Your task to perform on an android device: Open ESPN.com Image 0: 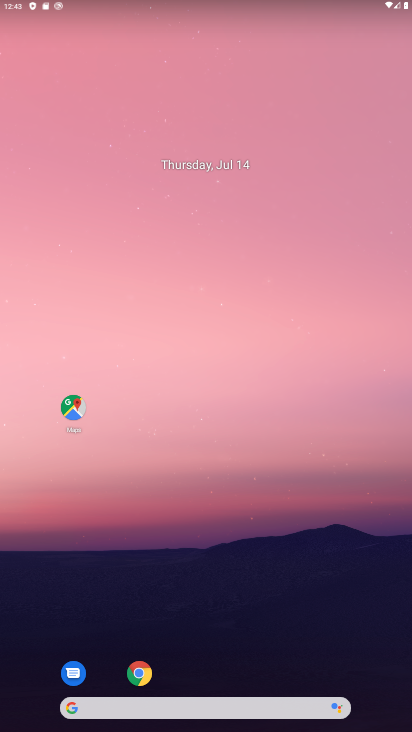
Step 0: click (143, 673)
Your task to perform on an android device: Open ESPN.com Image 1: 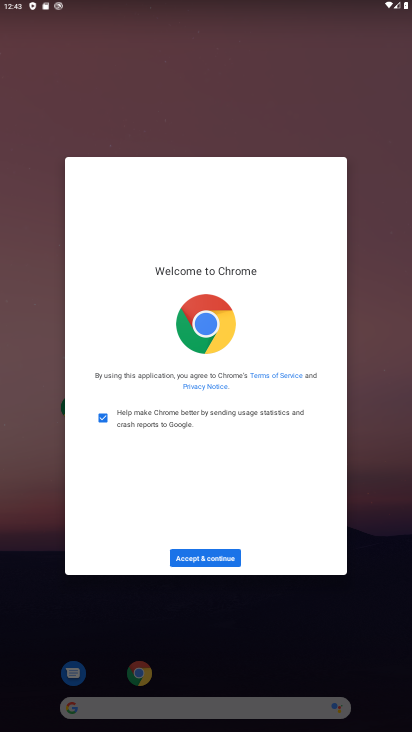
Step 1: click (210, 552)
Your task to perform on an android device: Open ESPN.com Image 2: 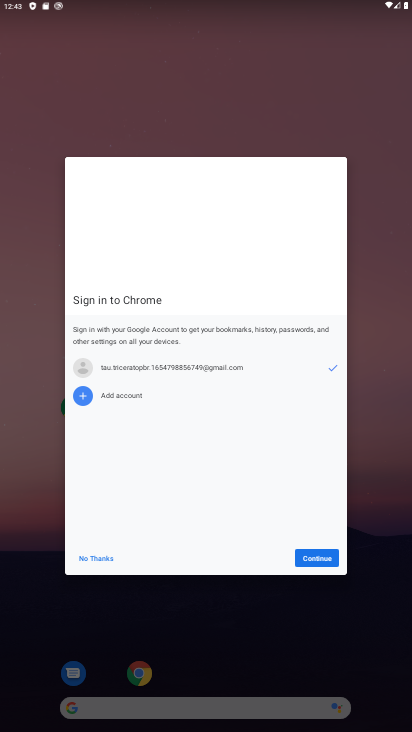
Step 2: click (302, 558)
Your task to perform on an android device: Open ESPN.com Image 3: 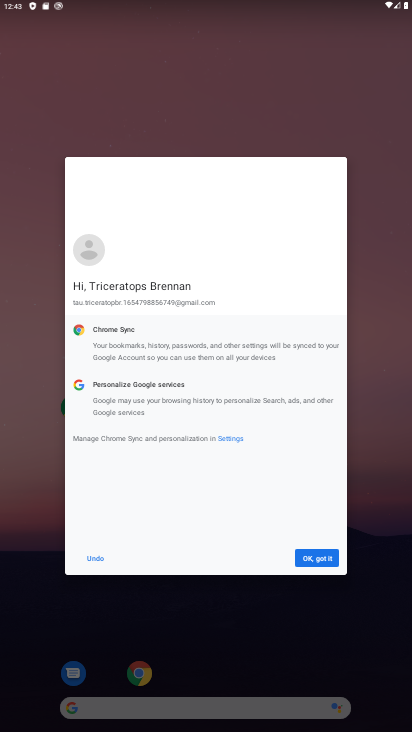
Step 3: click (317, 561)
Your task to perform on an android device: Open ESPN.com Image 4: 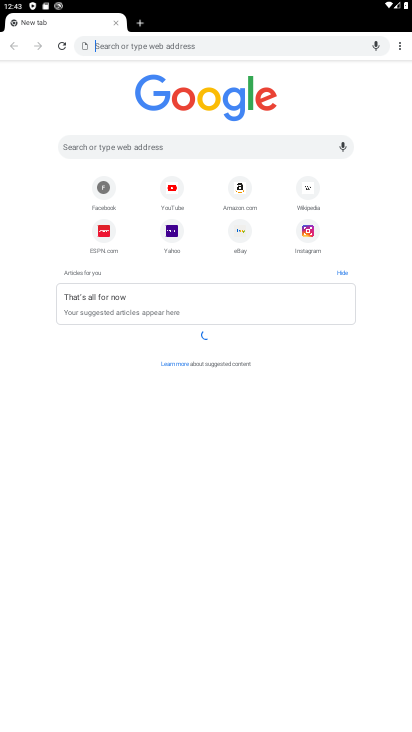
Step 4: click (106, 234)
Your task to perform on an android device: Open ESPN.com Image 5: 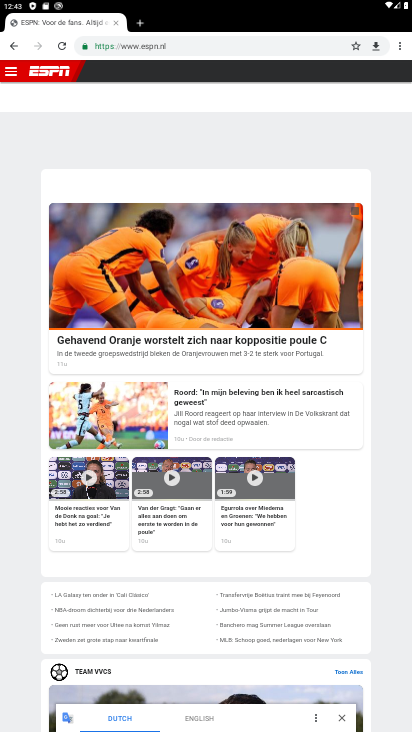
Step 5: task complete